Your task to perform on an android device: Clear the cart on ebay.com. Search for "usb-c to usb-b" on ebay.com, select the first entry, and add it to the cart. Image 0: 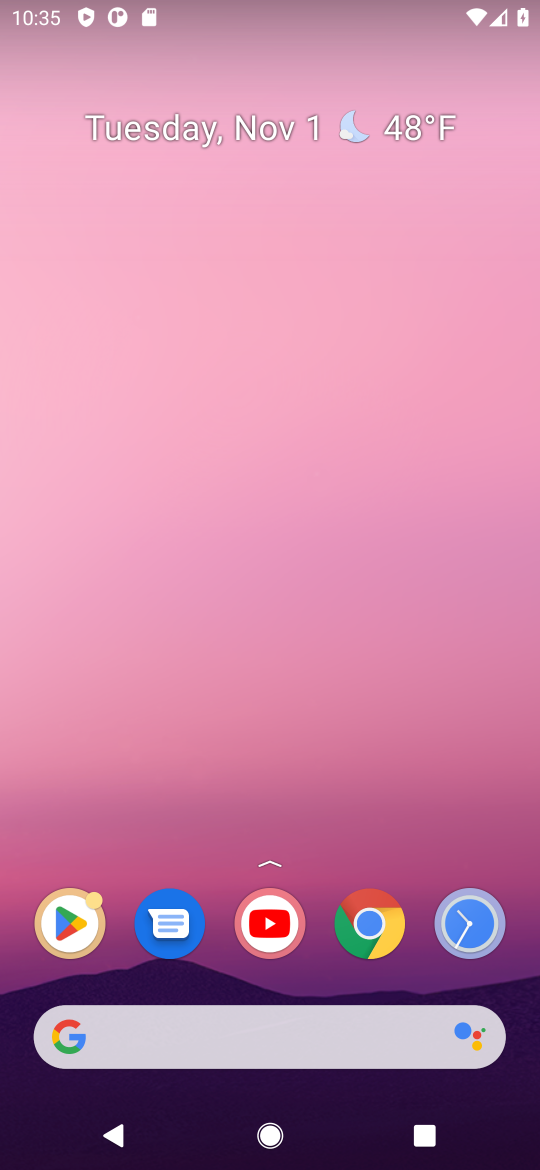
Step 0: click (390, 941)
Your task to perform on an android device: Clear the cart on ebay.com. Search for "usb-c to usb-b" on ebay.com, select the first entry, and add it to the cart. Image 1: 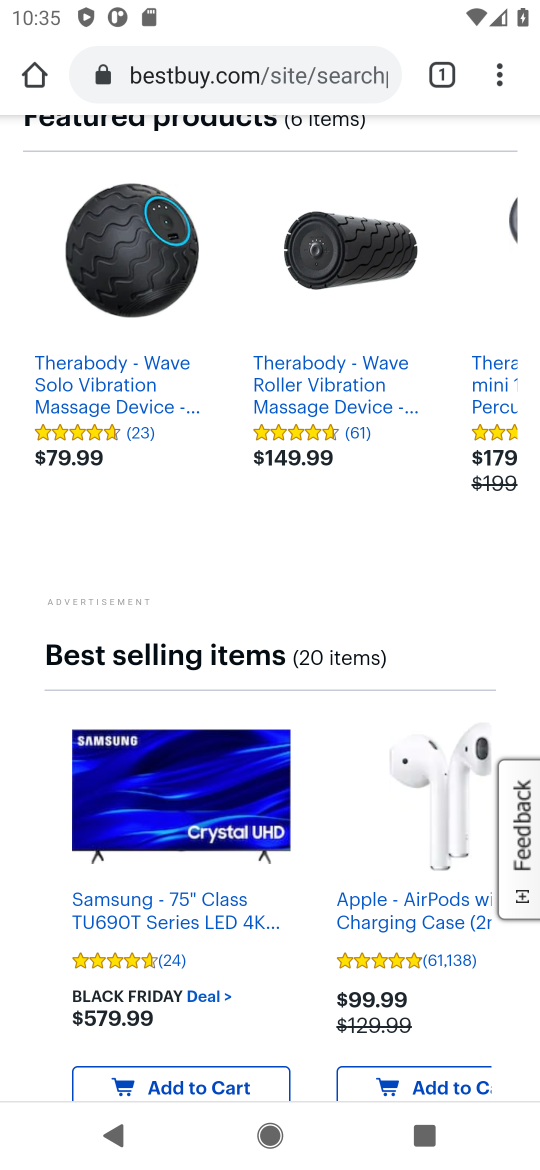
Step 1: click (230, 76)
Your task to perform on an android device: Clear the cart on ebay.com. Search for "usb-c to usb-b" on ebay.com, select the first entry, and add it to the cart. Image 2: 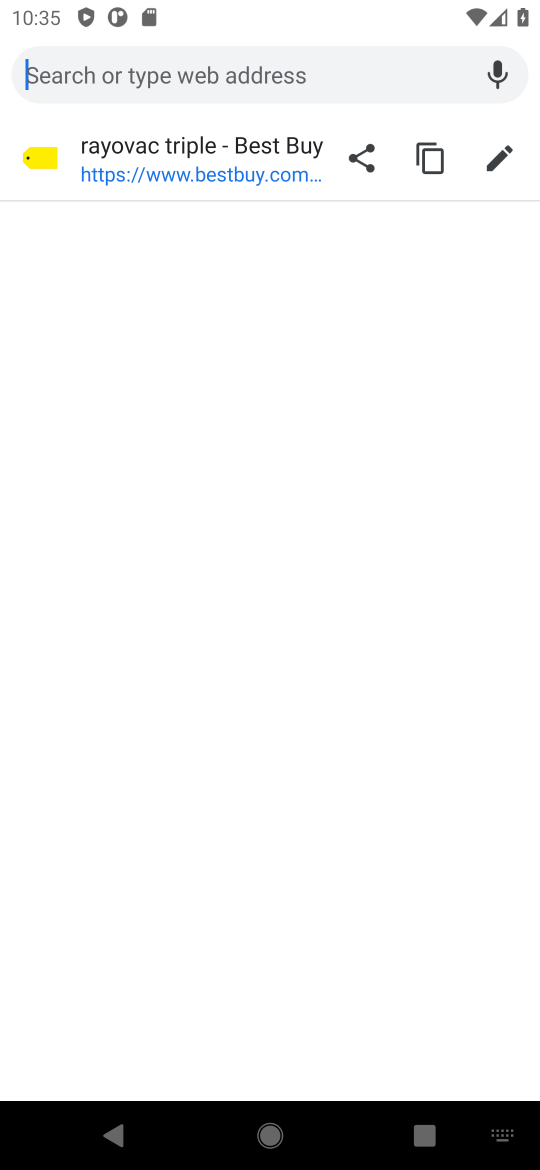
Step 2: type "ebay.com"
Your task to perform on an android device: Clear the cart on ebay.com. Search for "usb-c to usb-b" on ebay.com, select the first entry, and add it to the cart. Image 3: 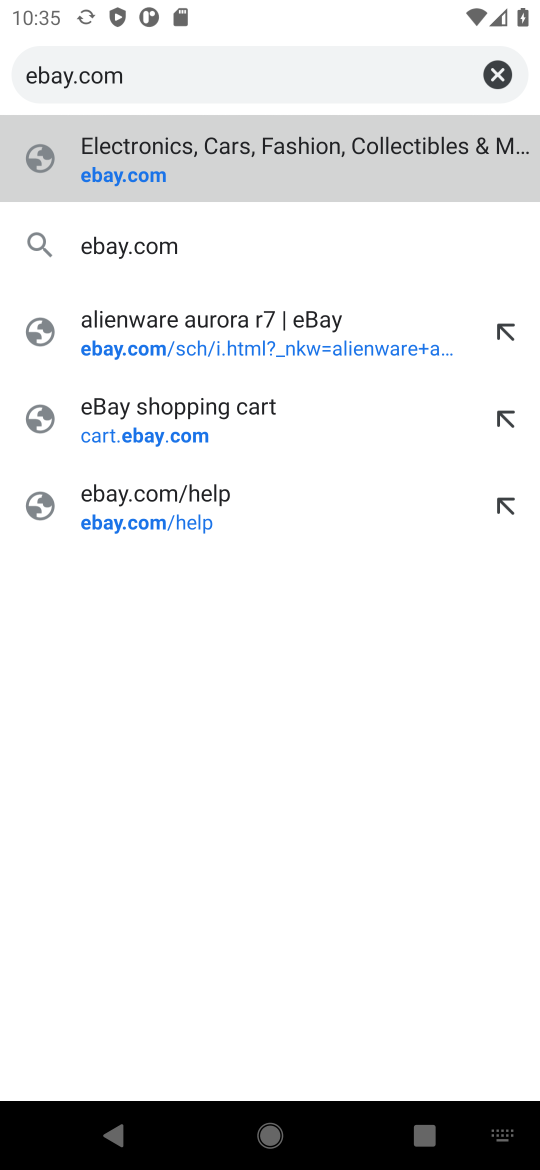
Step 3: click (243, 199)
Your task to perform on an android device: Clear the cart on ebay.com. Search for "usb-c to usb-b" on ebay.com, select the first entry, and add it to the cart. Image 4: 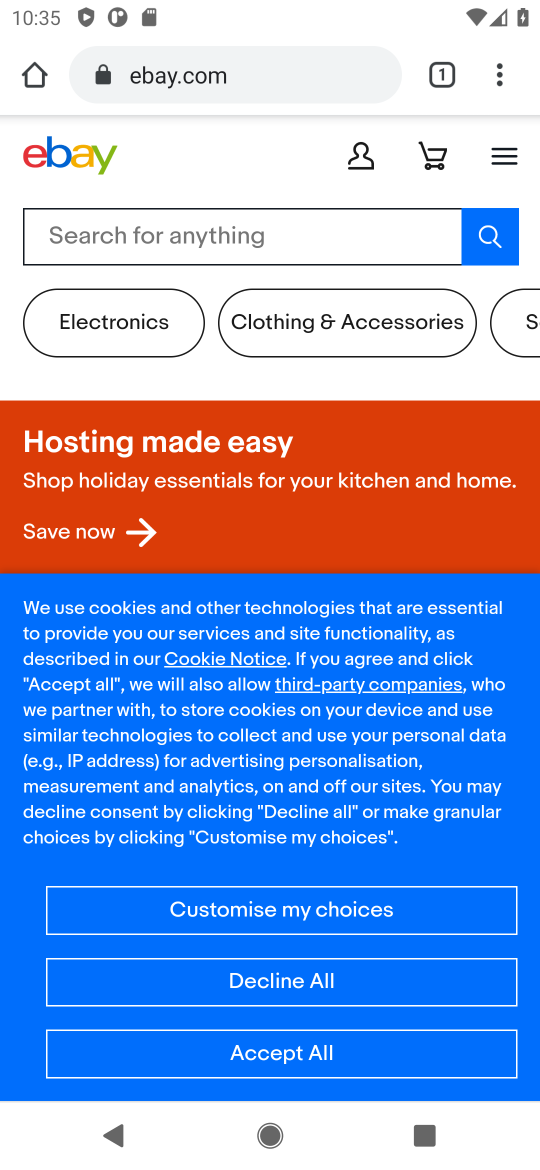
Step 4: click (275, 250)
Your task to perform on an android device: Clear the cart on ebay.com. Search for "usb-c to usb-b" on ebay.com, select the first entry, and add it to the cart. Image 5: 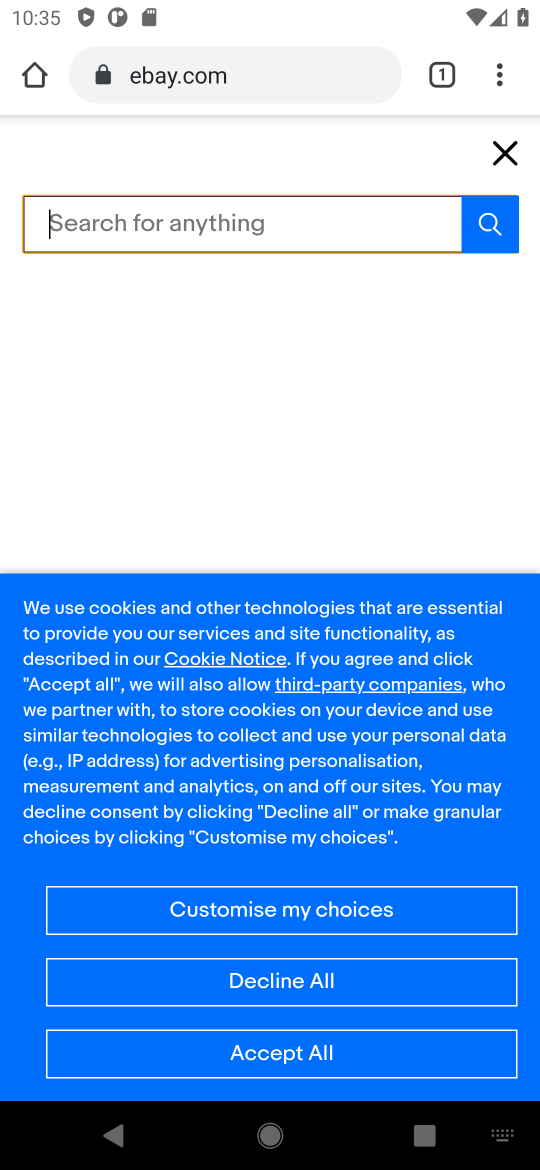
Step 5: type "usb-c to usb-b"
Your task to perform on an android device: Clear the cart on ebay.com. Search for "usb-c to usb-b" on ebay.com, select the first entry, and add it to the cart. Image 6: 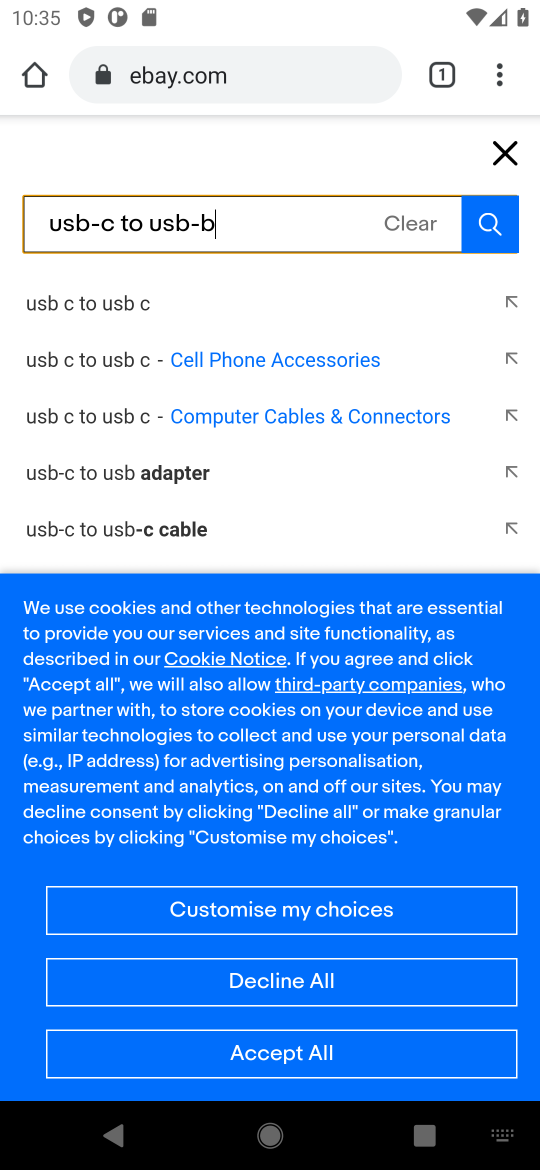
Step 6: press enter
Your task to perform on an android device: Clear the cart on ebay.com. Search for "usb-c to usb-b" on ebay.com, select the first entry, and add it to the cart. Image 7: 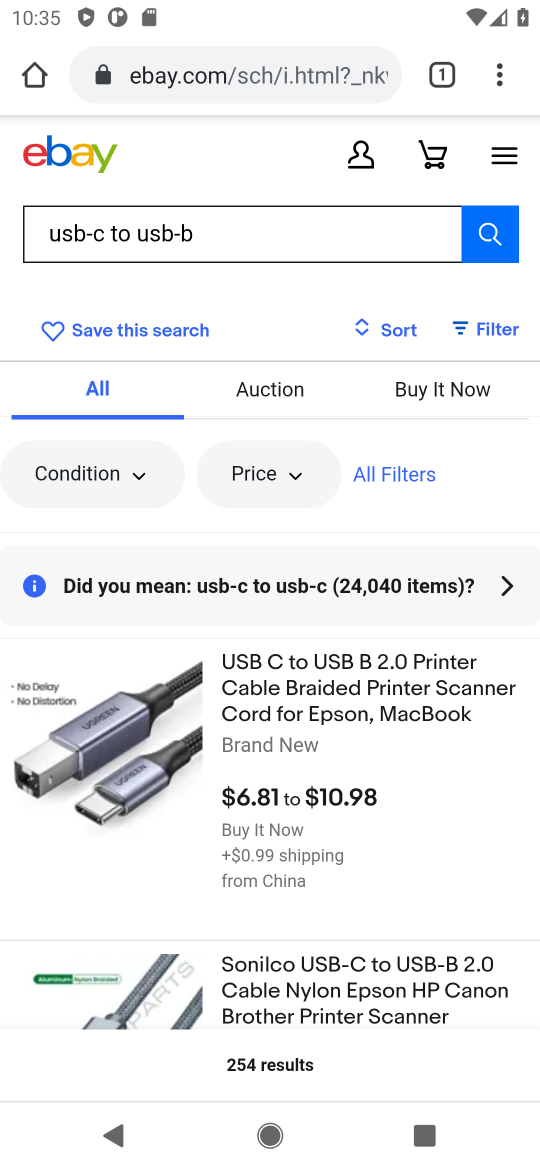
Step 7: click (256, 741)
Your task to perform on an android device: Clear the cart on ebay.com. Search for "usb-c to usb-b" on ebay.com, select the first entry, and add it to the cart. Image 8: 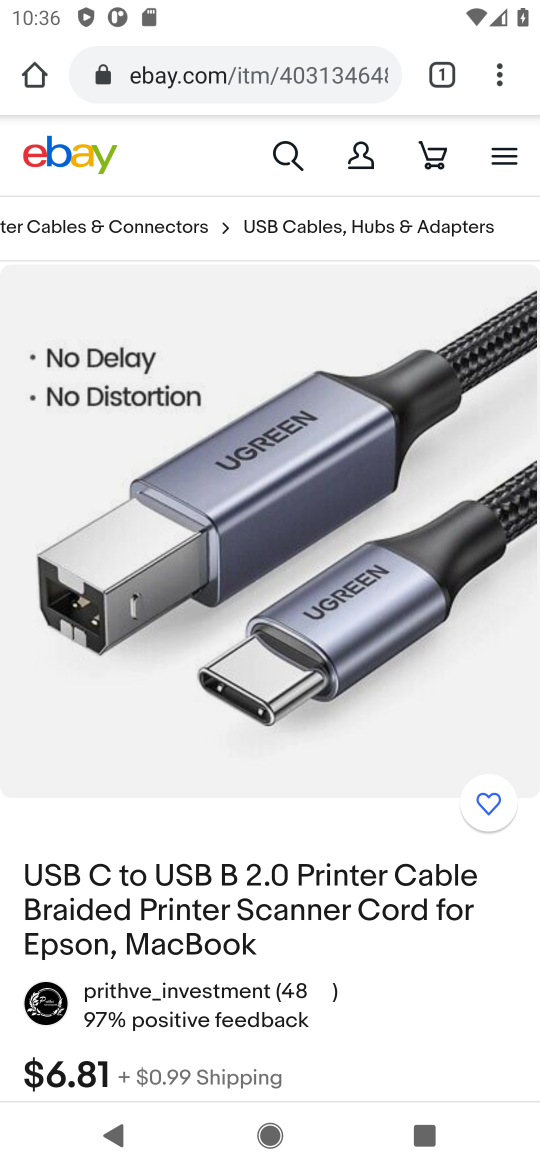
Step 8: drag from (355, 1045) to (166, 364)
Your task to perform on an android device: Clear the cart on ebay.com. Search for "usb-c to usb-b" on ebay.com, select the first entry, and add it to the cart. Image 9: 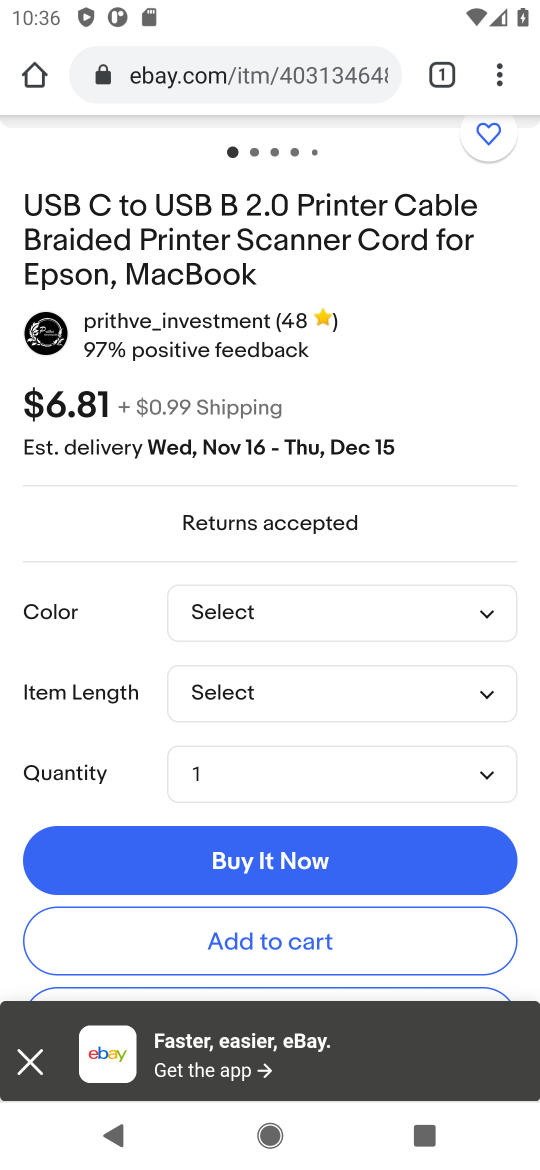
Step 9: click (342, 946)
Your task to perform on an android device: Clear the cart on ebay.com. Search for "usb-c to usb-b" on ebay.com, select the first entry, and add it to the cart. Image 10: 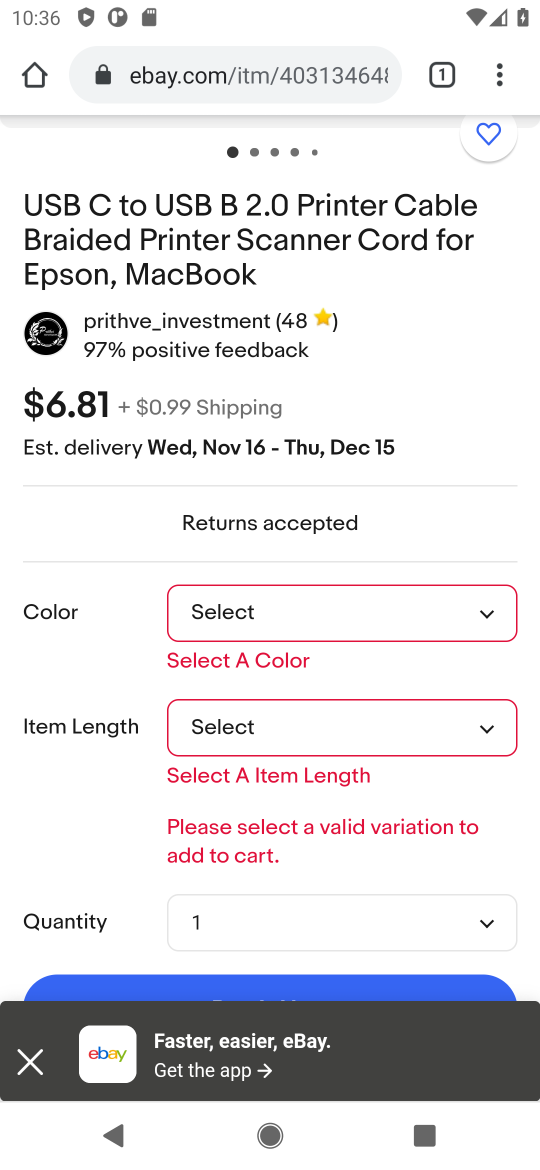
Step 10: click (335, 610)
Your task to perform on an android device: Clear the cart on ebay.com. Search for "usb-c to usb-b" on ebay.com, select the first entry, and add it to the cart. Image 11: 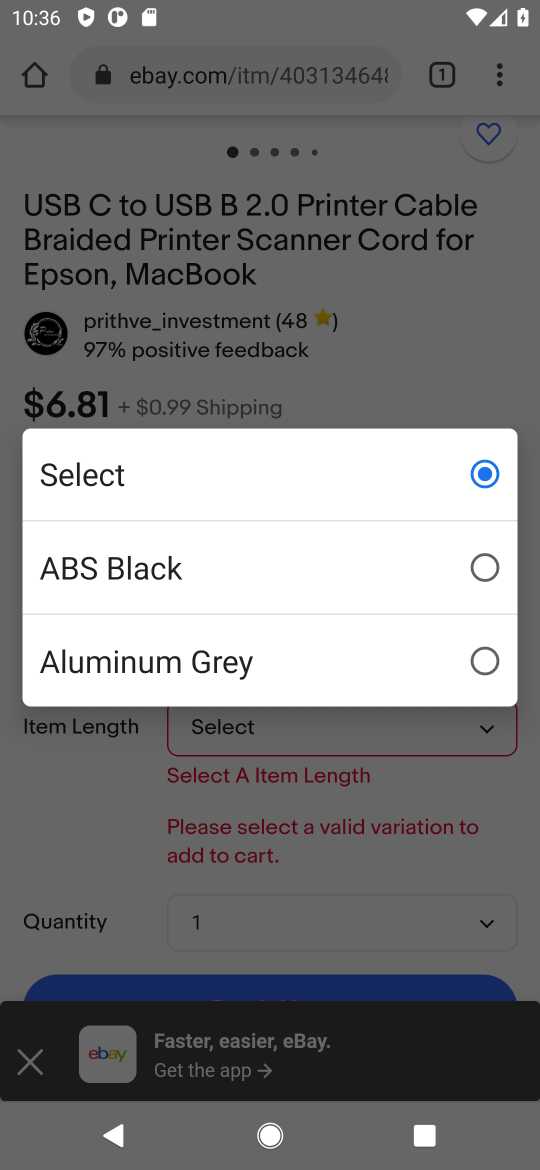
Step 11: click (208, 575)
Your task to perform on an android device: Clear the cart on ebay.com. Search for "usb-c to usb-b" on ebay.com, select the first entry, and add it to the cart. Image 12: 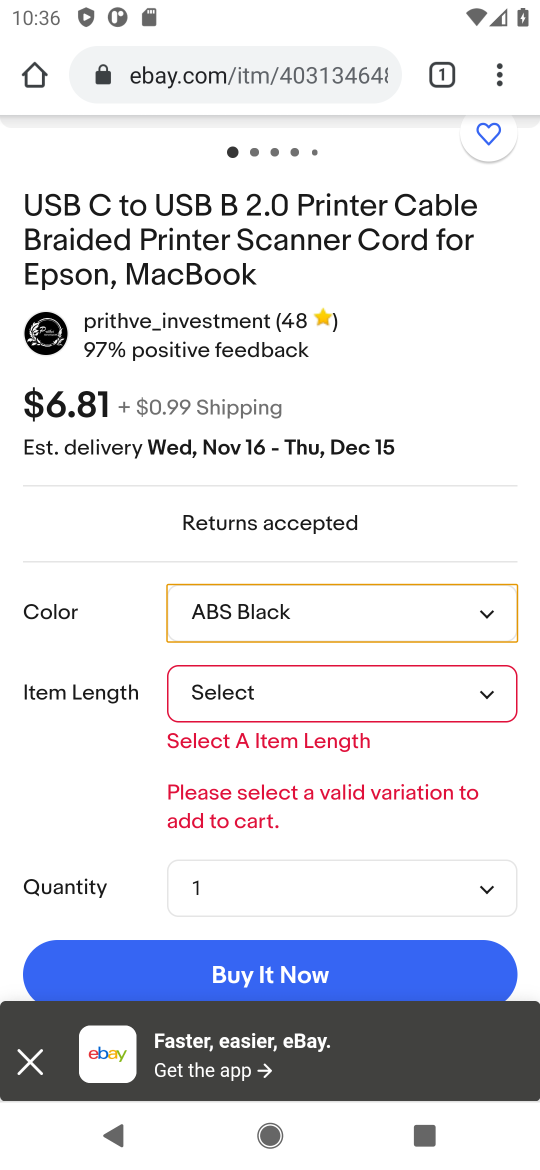
Step 12: click (330, 701)
Your task to perform on an android device: Clear the cart on ebay.com. Search for "usb-c to usb-b" on ebay.com, select the first entry, and add it to the cart. Image 13: 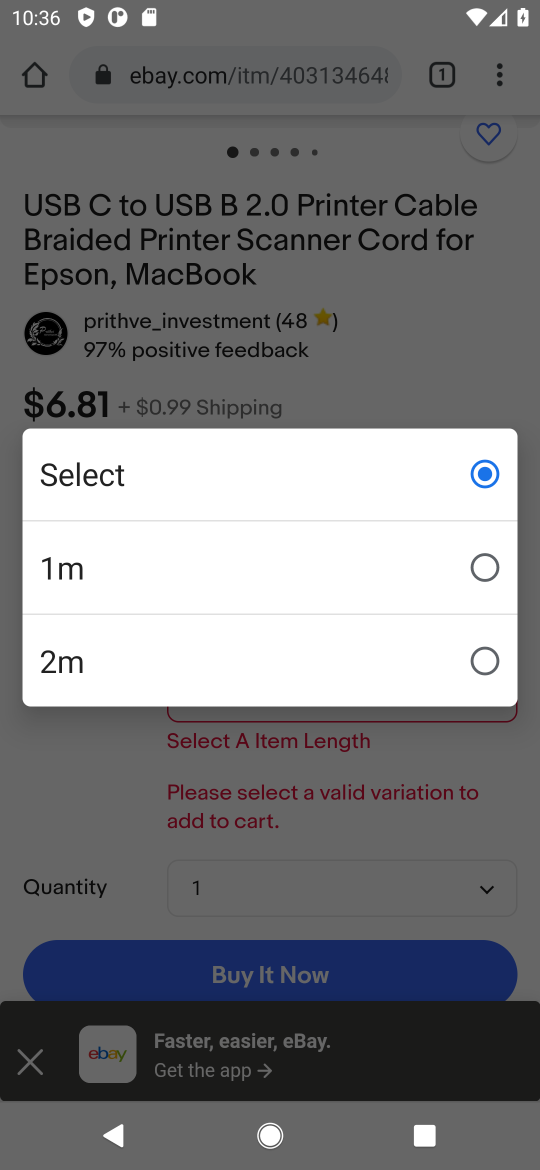
Step 13: click (275, 584)
Your task to perform on an android device: Clear the cart on ebay.com. Search for "usb-c to usb-b" on ebay.com, select the first entry, and add it to the cart. Image 14: 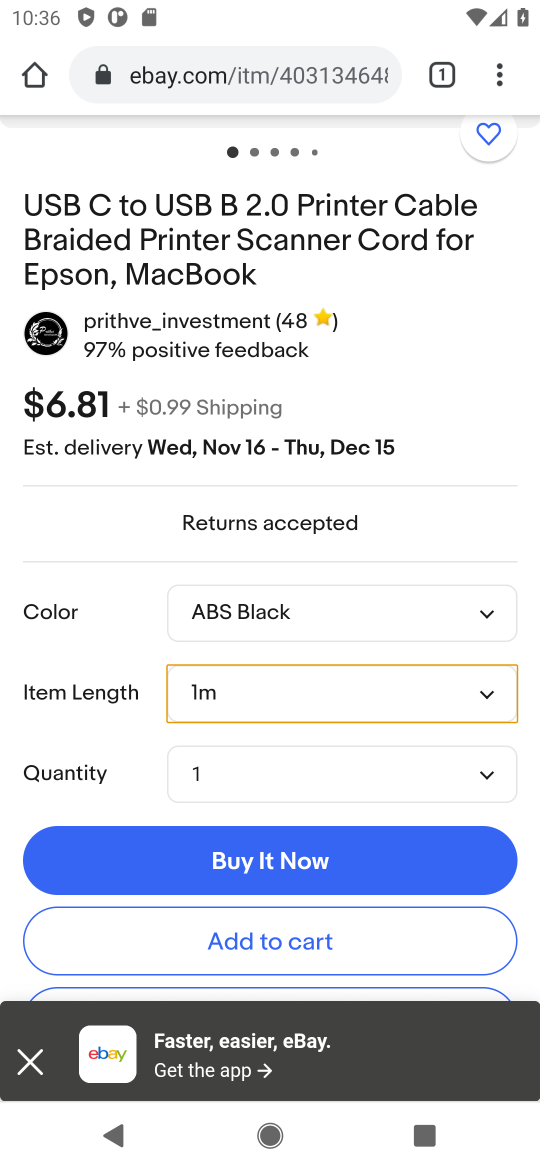
Step 14: click (359, 930)
Your task to perform on an android device: Clear the cart on ebay.com. Search for "usb-c to usb-b" on ebay.com, select the first entry, and add it to the cart. Image 15: 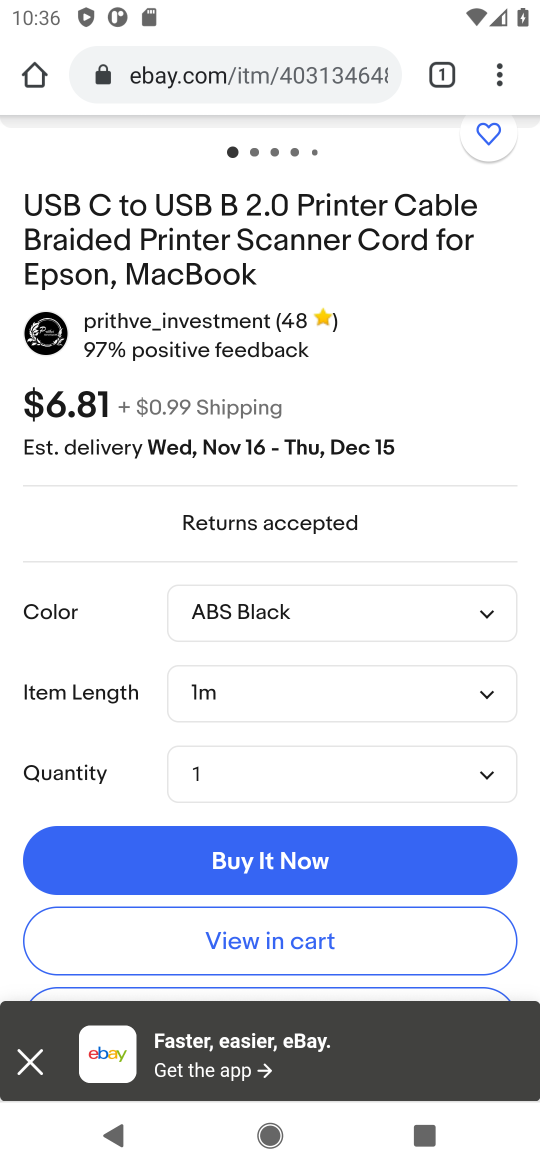
Step 15: task complete